Your task to perform on an android device: Go to wifi settings Image 0: 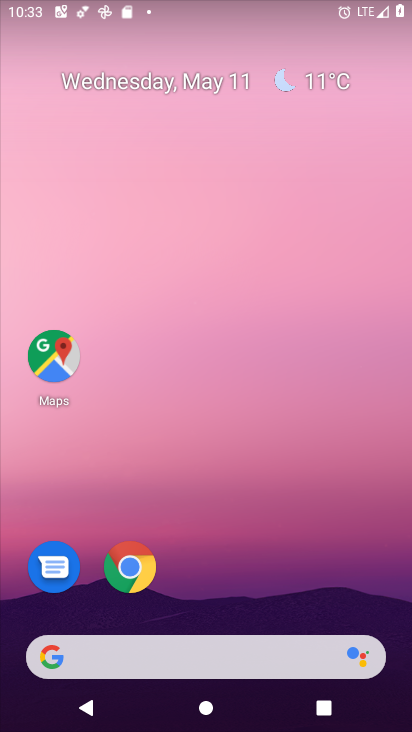
Step 0: drag from (256, 428) to (235, 128)
Your task to perform on an android device: Go to wifi settings Image 1: 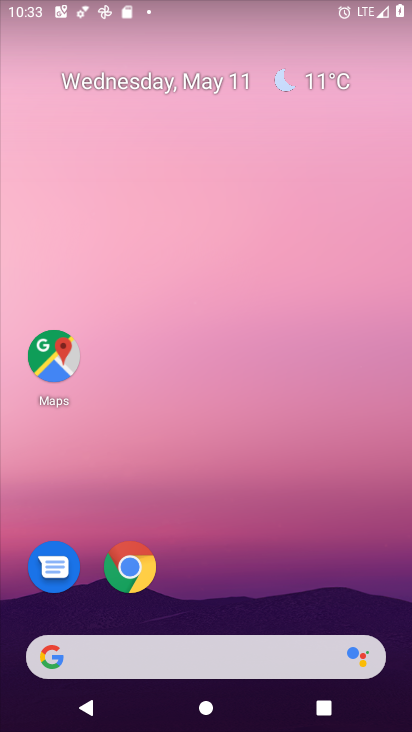
Step 1: drag from (278, 549) to (224, 60)
Your task to perform on an android device: Go to wifi settings Image 2: 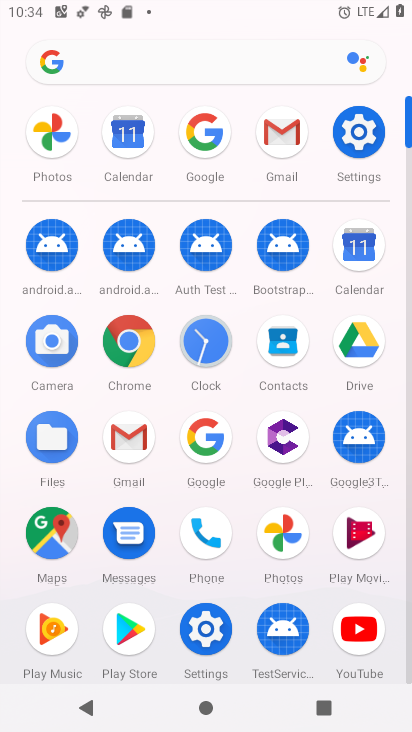
Step 2: click (357, 149)
Your task to perform on an android device: Go to wifi settings Image 3: 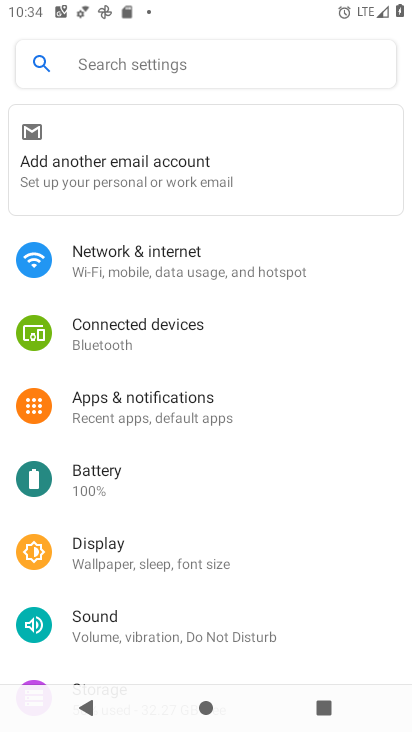
Step 3: click (237, 262)
Your task to perform on an android device: Go to wifi settings Image 4: 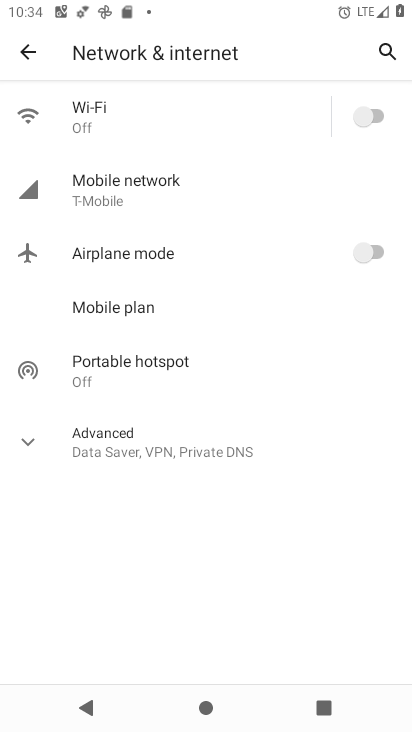
Step 4: click (181, 124)
Your task to perform on an android device: Go to wifi settings Image 5: 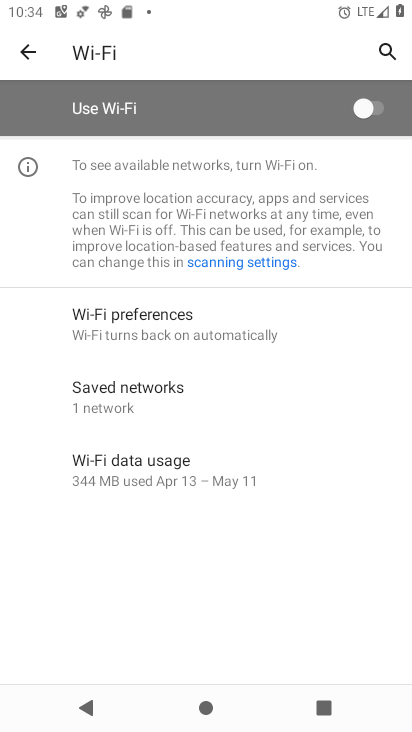
Step 5: task complete